Your task to perform on an android device: Clear the shopping cart on ebay.com. Add acer predator to the cart on ebay.com Image 0: 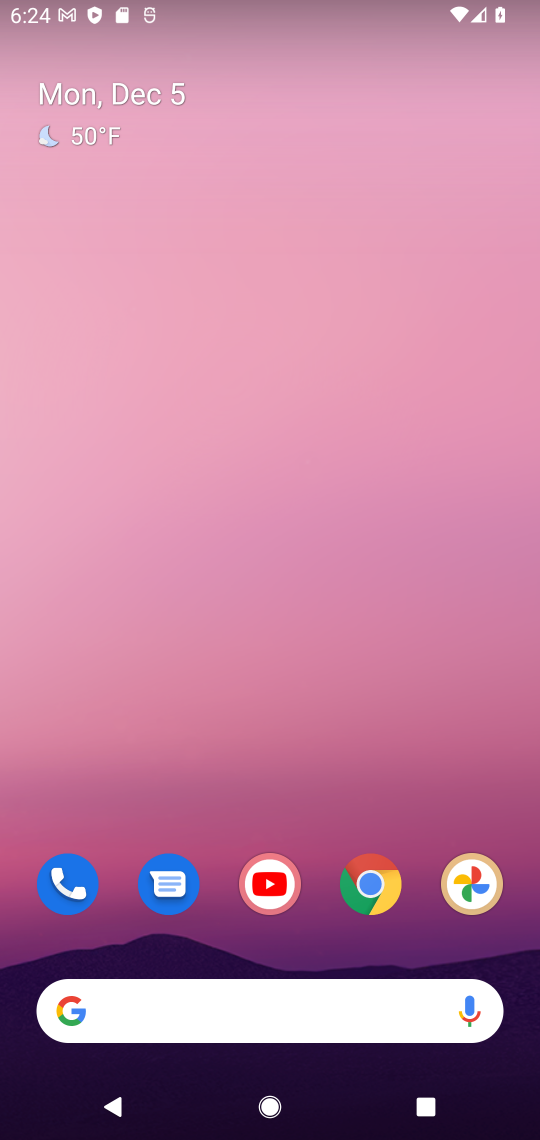
Step 0: click (371, 874)
Your task to perform on an android device: Clear the shopping cart on ebay.com. Add acer predator to the cart on ebay.com Image 1: 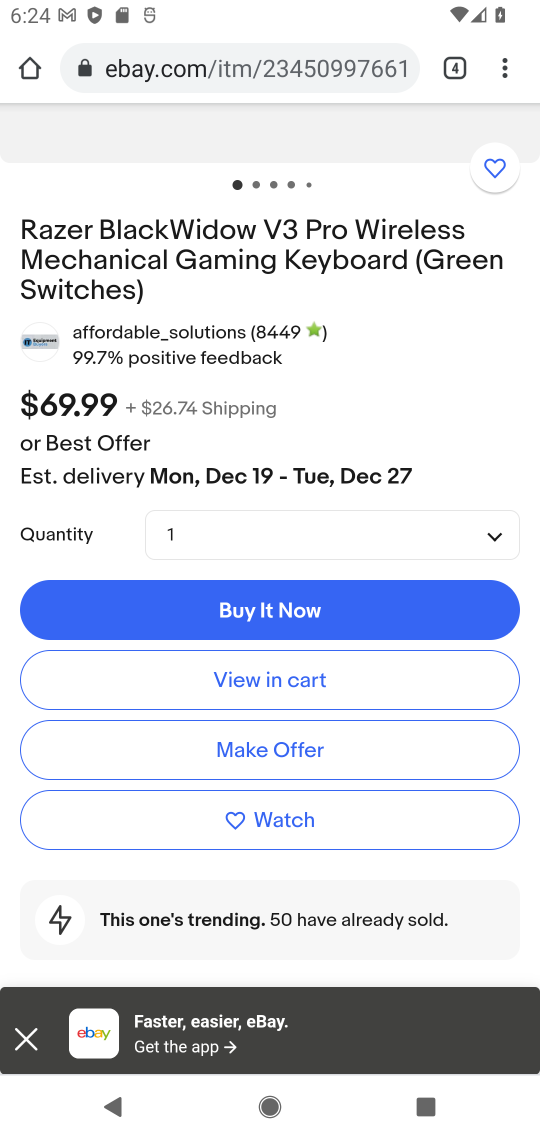
Step 1: click (278, 682)
Your task to perform on an android device: Clear the shopping cart on ebay.com. Add acer predator to the cart on ebay.com Image 2: 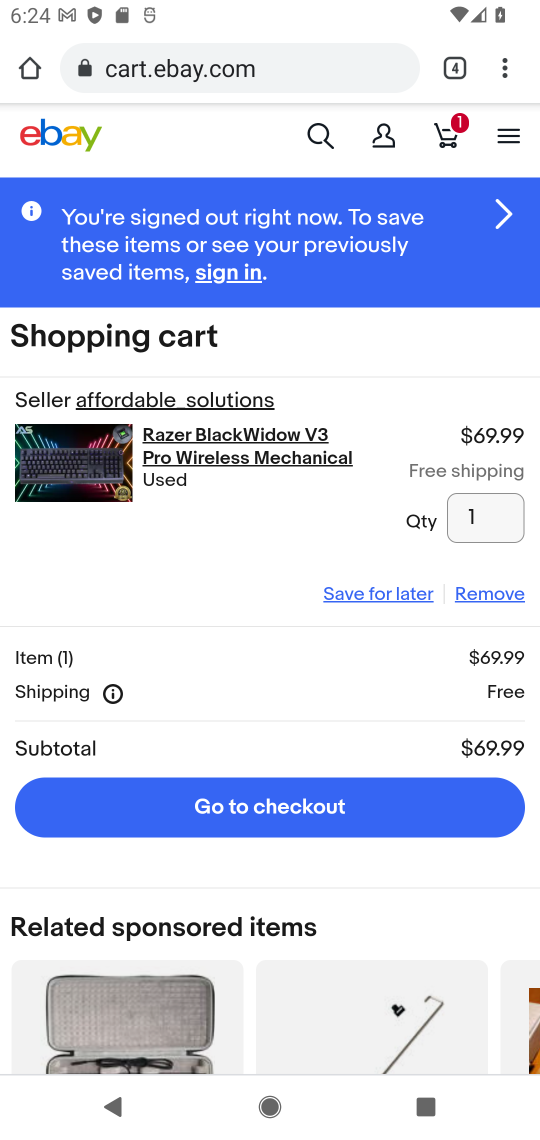
Step 2: click (487, 596)
Your task to perform on an android device: Clear the shopping cart on ebay.com. Add acer predator to the cart on ebay.com Image 3: 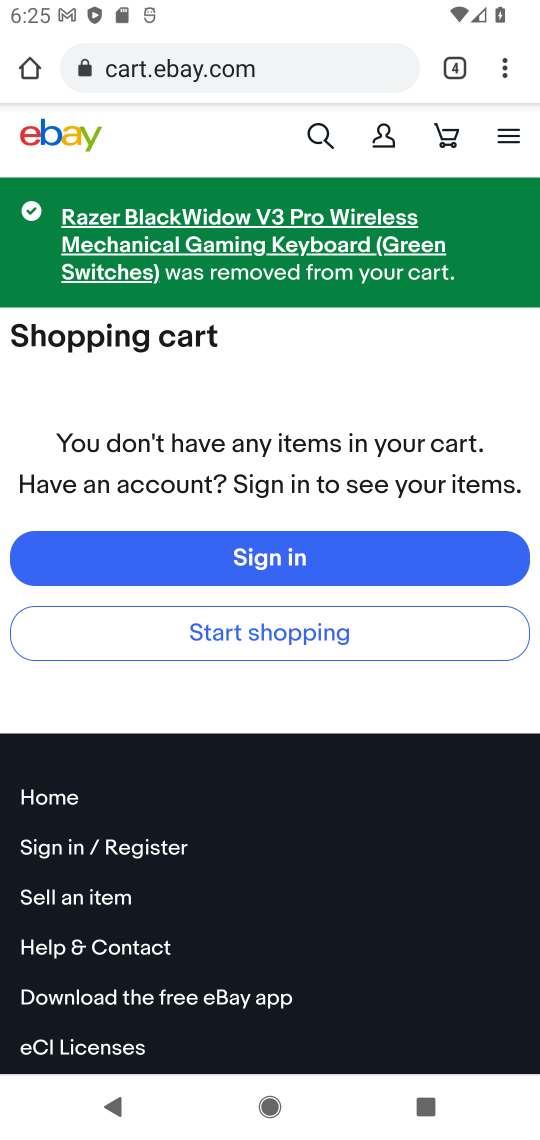
Step 3: click (317, 138)
Your task to perform on an android device: Clear the shopping cart on ebay.com. Add acer predator to the cart on ebay.com Image 4: 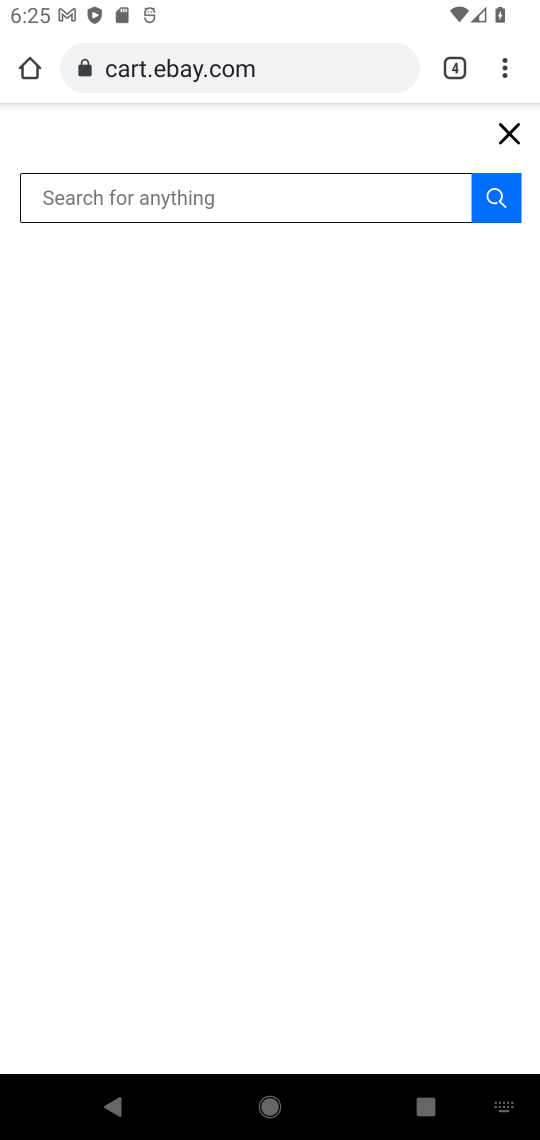
Step 4: type "acer predator"
Your task to perform on an android device: Clear the shopping cart on ebay.com. Add acer predator to the cart on ebay.com Image 5: 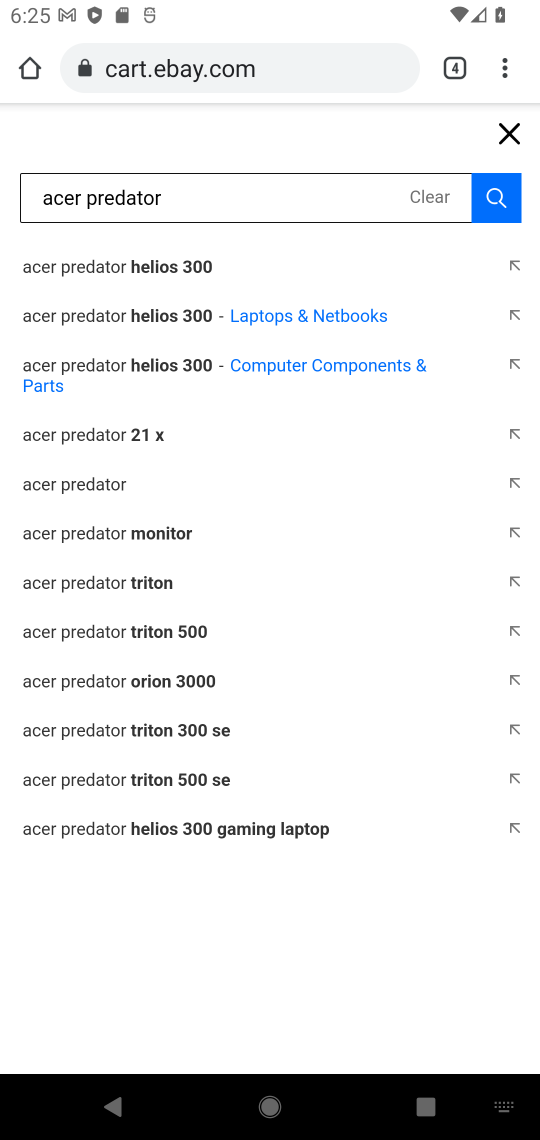
Step 5: click (100, 475)
Your task to perform on an android device: Clear the shopping cart on ebay.com. Add acer predator to the cart on ebay.com Image 6: 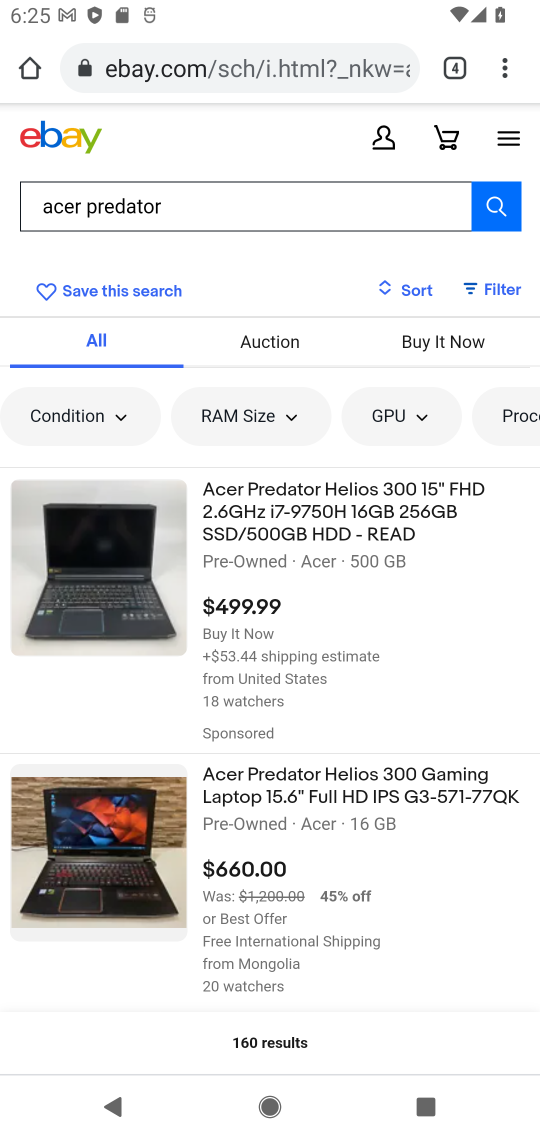
Step 6: click (316, 515)
Your task to perform on an android device: Clear the shopping cart on ebay.com. Add acer predator to the cart on ebay.com Image 7: 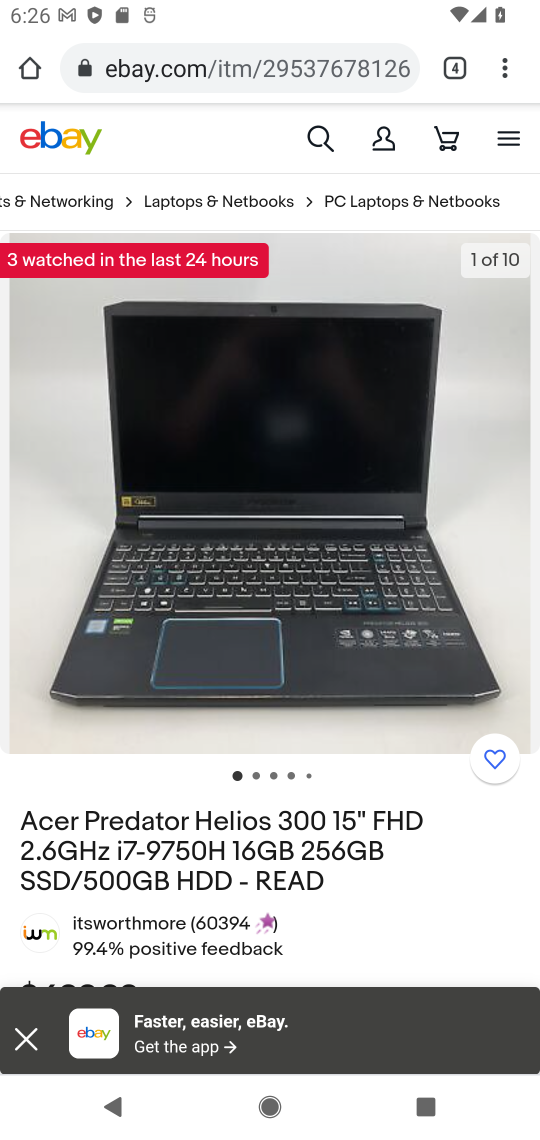
Step 7: drag from (313, 929) to (367, 481)
Your task to perform on an android device: Clear the shopping cart on ebay.com. Add acer predator to the cart on ebay.com Image 8: 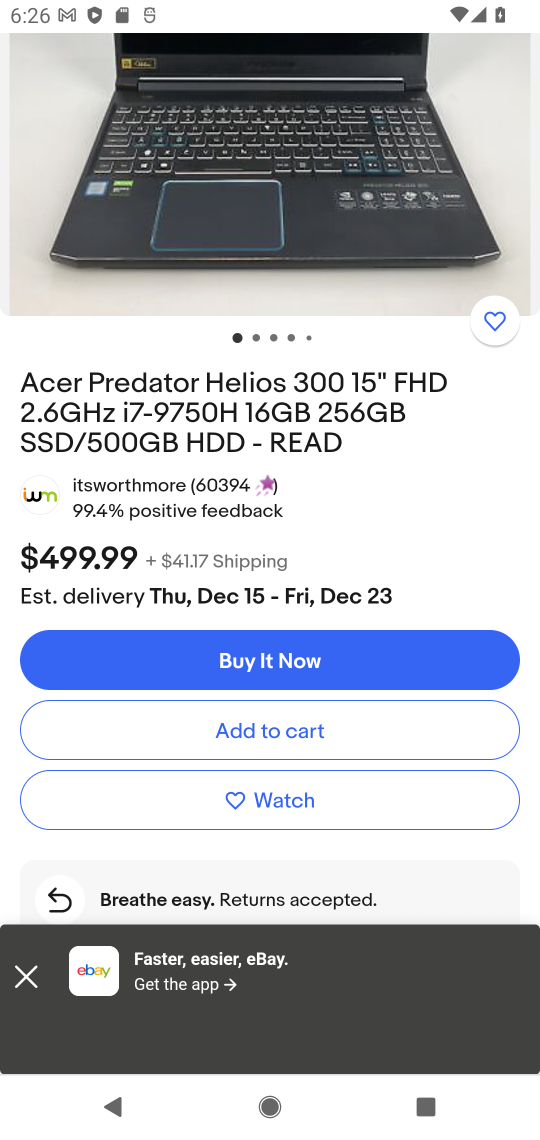
Step 8: click (330, 730)
Your task to perform on an android device: Clear the shopping cart on ebay.com. Add acer predator to the cart on ebay.com Image 9: 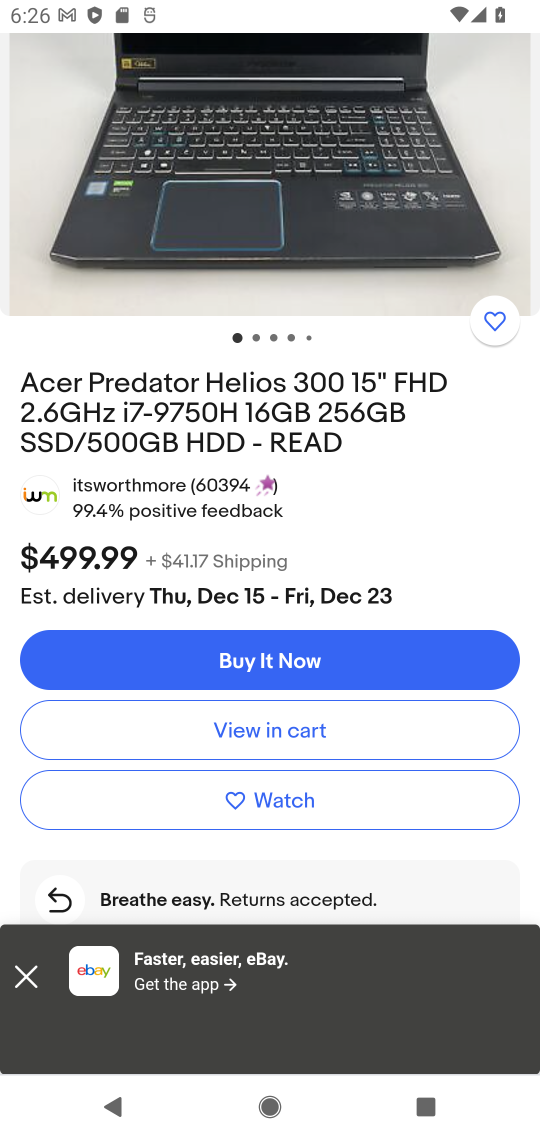
Step 9: task complete